Your task to perform on an android device: turn on improve location accuracy Image 0: 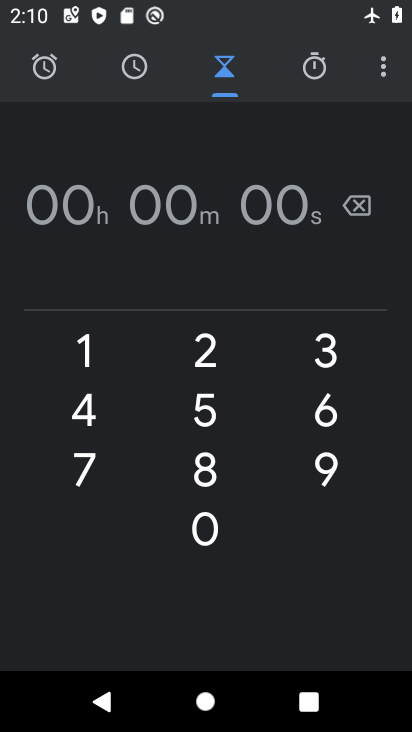
Step 0: press home button
Your task to perform on an android device: turn on improve location accuracy Image 1: 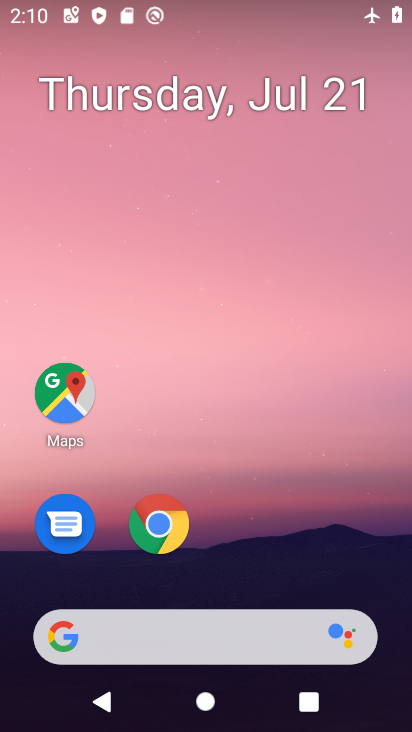
Step 1: drag from (292, 537) to (292, 35)
Your task to perform on an android device: turn on improve location accuracy Image 2: 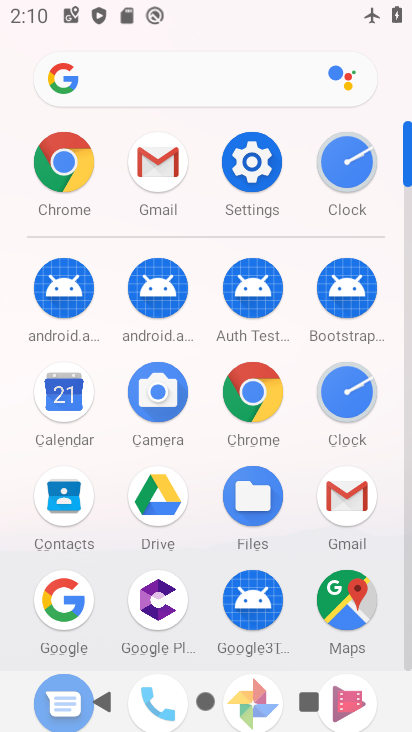
Step 2: click (259, 160)
Your task to perform on an android device: turn on improve location accuracy Image 3: 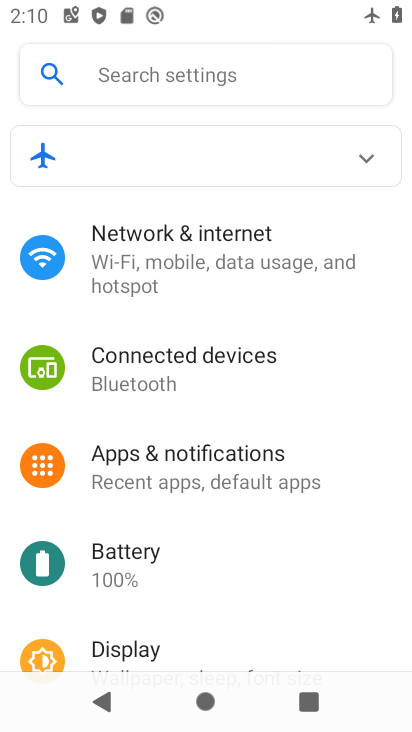
Step 3: drag from (230, 560) to (292, 79)
Your task to perform on an android device: turn on improve location accuracy Image 4: 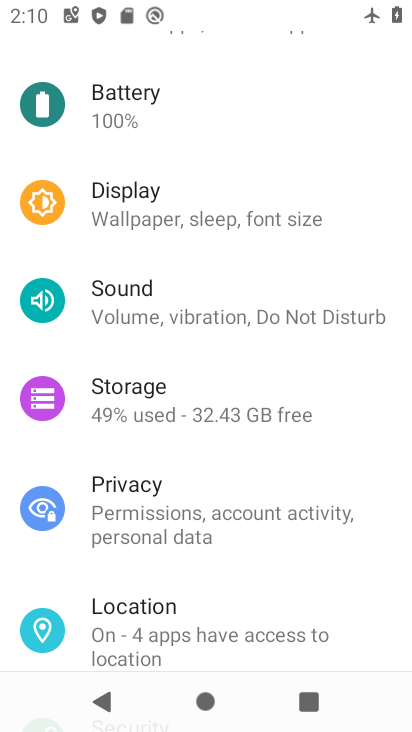
Step 4: click (224, 624)
Your task to perform on an android device: turn on improve location accuracy Image 5: 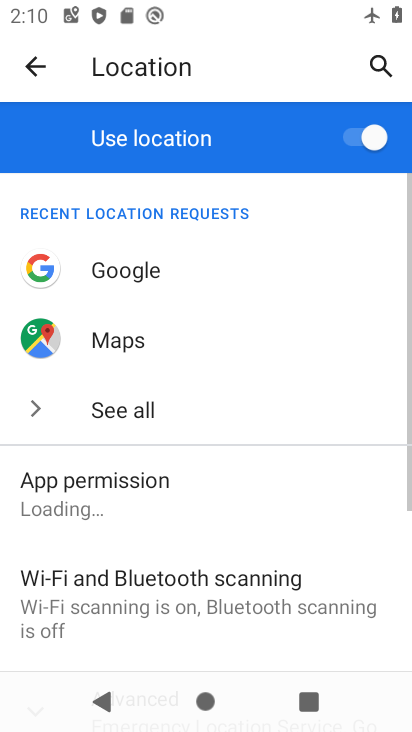
Step 5: drag from (262, 481) to (283, 160)
Your task to perform on an android device: turn on improve location accuracy Image 6: 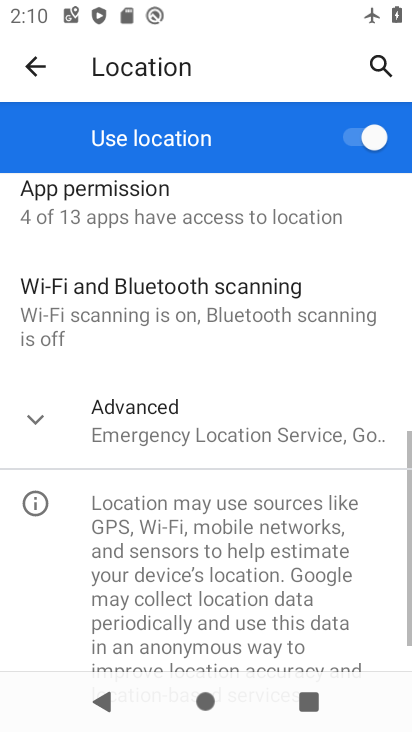
Step 6: click (35, 415)
Your task to perform on an android device: turn on improve location accuracy Image 7: 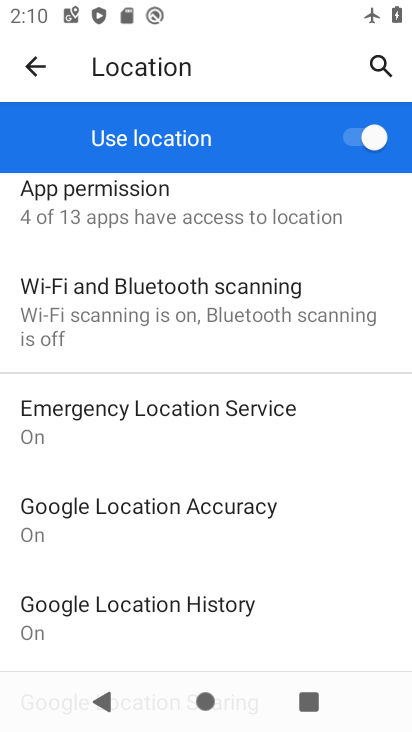
Step 7: click (232, 512)
Your task to perform on an android device: turn on improve location accuracy Image 8: 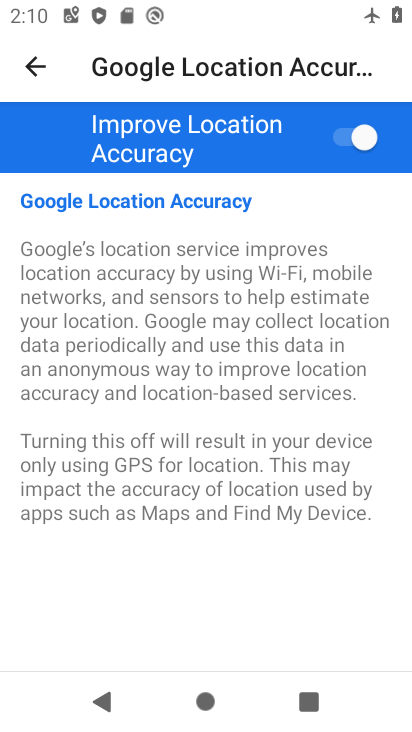
Step 8: task complete